Your task to perform on an android device: Open network settings Image 0: 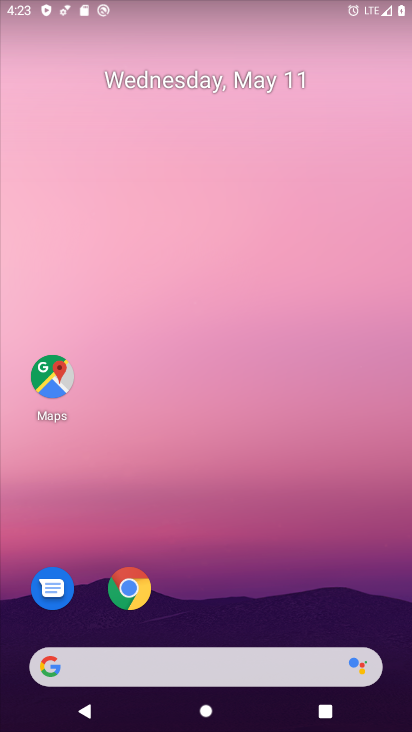
Step 0: drag from (215, 627) to (178, 106)
Your task to perform on an android device: Open network settings Image 1: 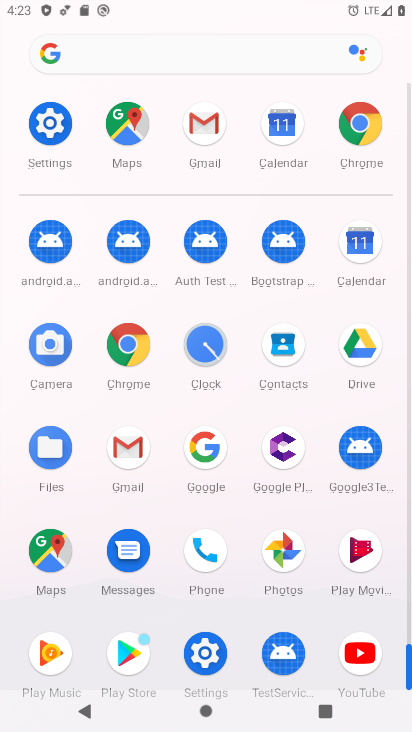
Step 1: click (54, 134)
Your task to perform on an android device: Open network settings Image 2: 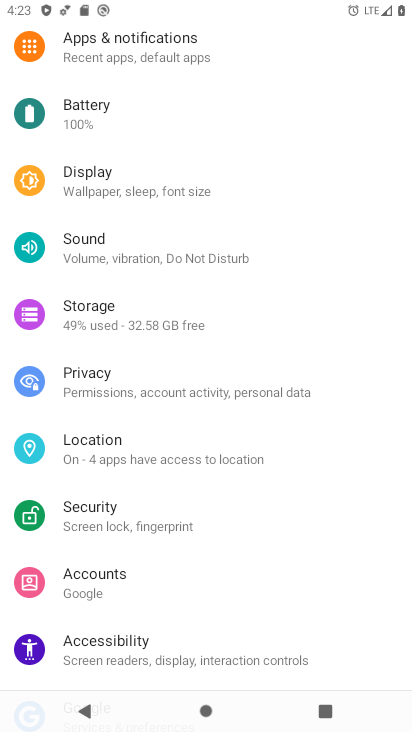
Step 2: drag from (128, 257) to (133, 504)
Your task to perform on an android device: Open network settings Image 3: 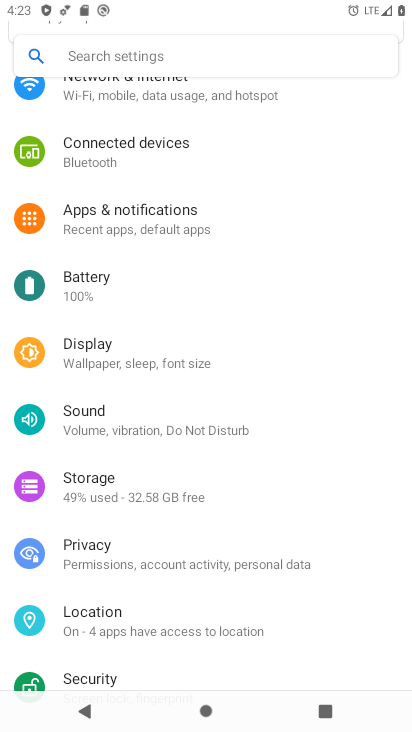
Step 3: drag from (164, 232) to (170, 587)
Your task to perform on an android device: Open network settings Image 4: 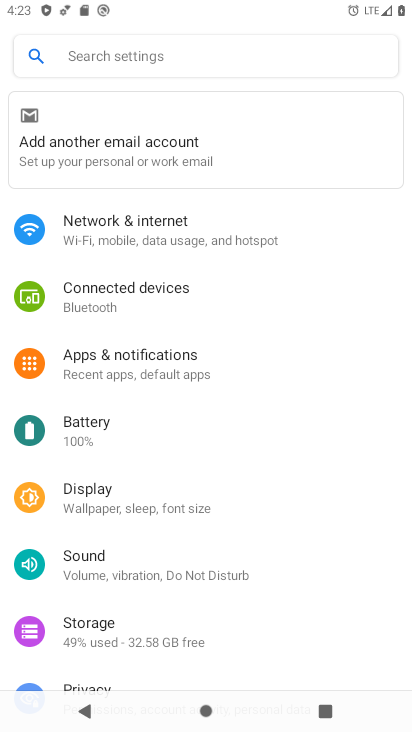
Step 4: click (112, 244)
Your task to perform on an android device: Open network settings Image 5: 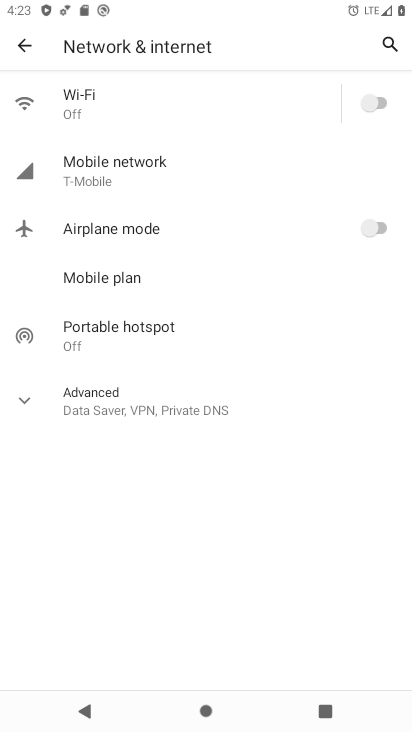
Step 5: click (92, 191)
Your task to perform on an android device: Open network settings Image 6: 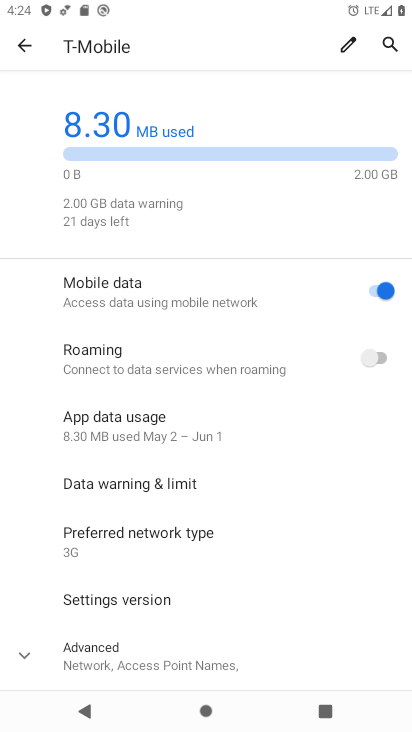
Step 6: task complete